Your task to perform on an android device: change alarm snooze length Image 0: 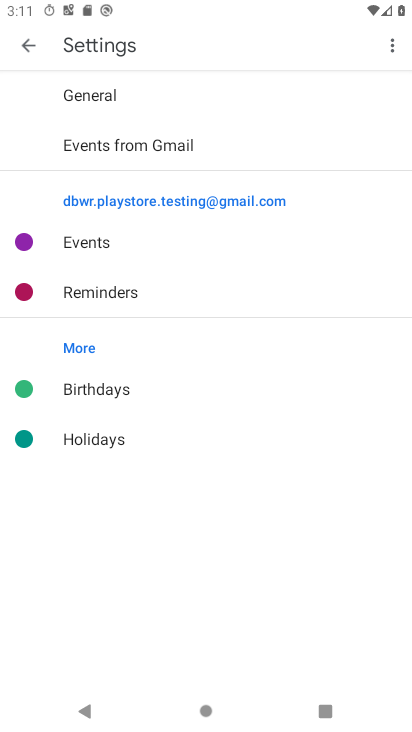
Step 0: press home button
Your task to perform on an android device: change alarm snooze length Image 1: 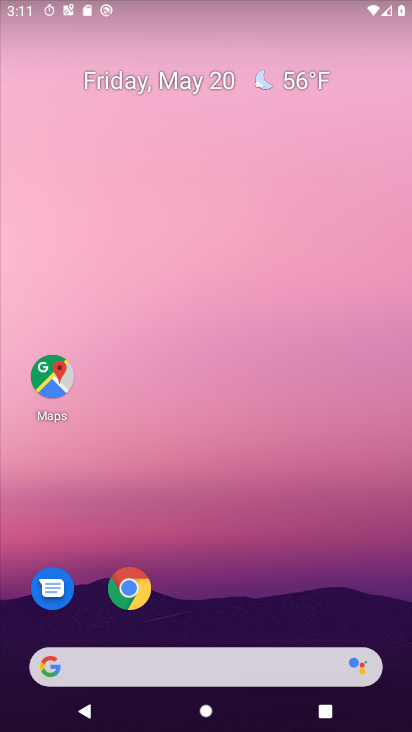
Step 1: drag from (20, 620) to (371, 155)
Your task to perform on an android device: change alarm snooze length Image 2: 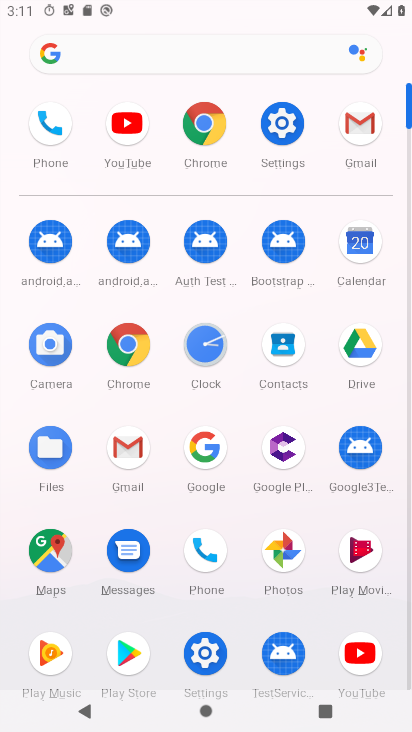
Step 2: click (207, 349)
Your task to perform on an android device: change alarm snooze length Image 3: 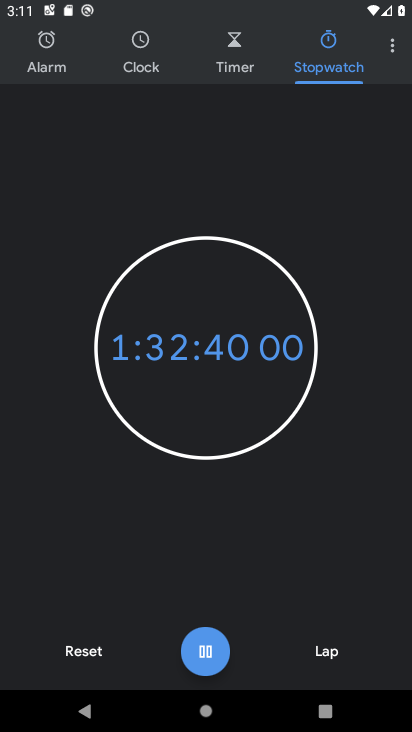
Step 3: click (390, 40)
Your task to perform on an android device: change alarm snooze length Image 4: 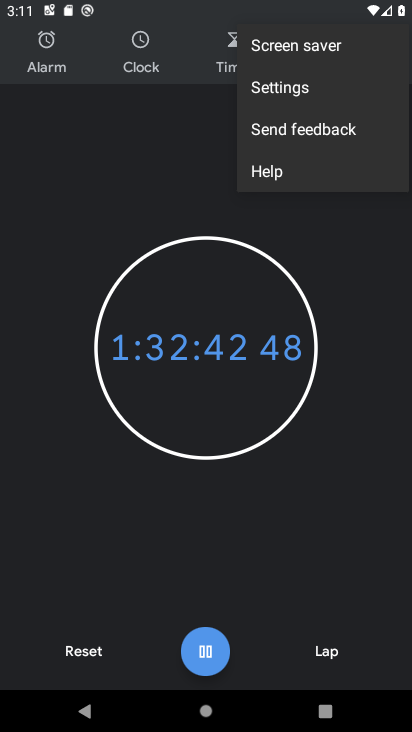
Step 4: click (269, 82)
Your task to perform on an android device: change alarm snooze length Image 5: 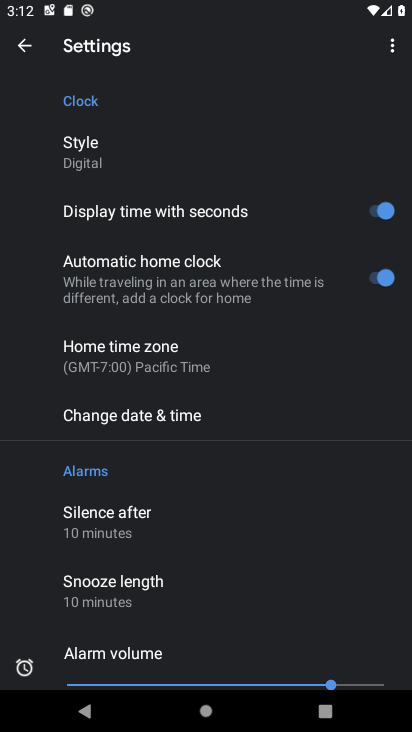
Step 5: click (91, 586)
Your task to perform on an android device: change alarm snooze length Image 6: 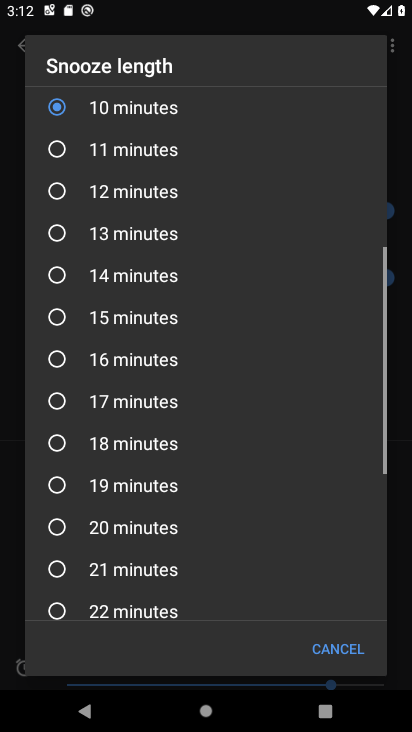
Step 6: click (107, 154)
Your task to perform on an android device: change alarm snooze length Image 7: 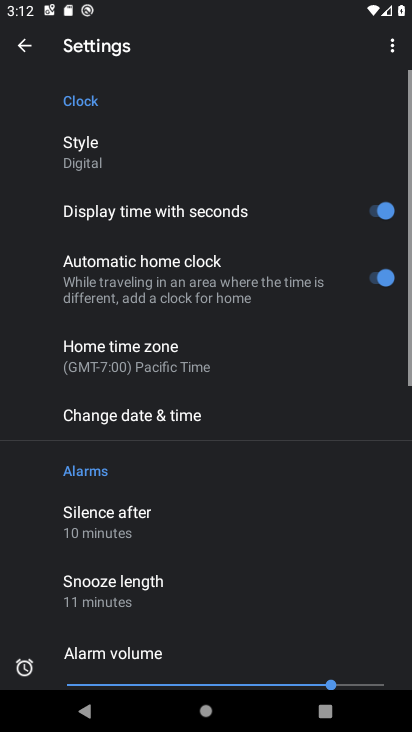
Step 7: task complete